Your task to perform on an android device: delete location history Image 0: 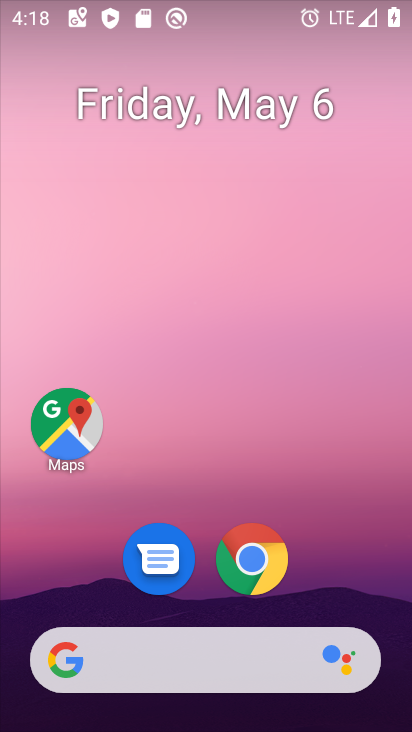
Step 0: drag from (217, 586) to (250, 264)
Your task to perform on an android device: delete location history Image 1: 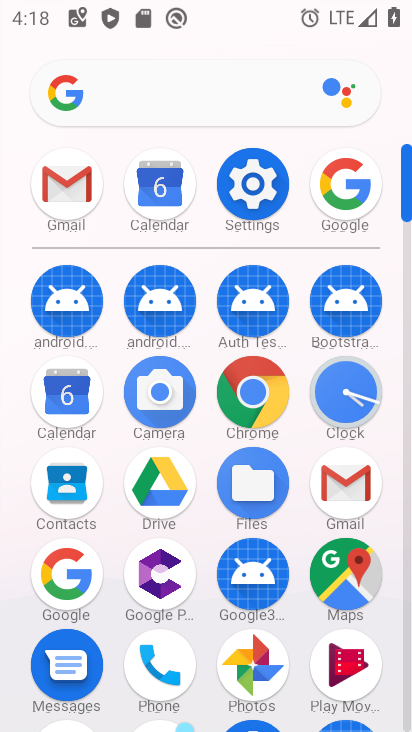
Step 1: click (234, 196)
Your task to perform on an android device: delete location history Image 2: 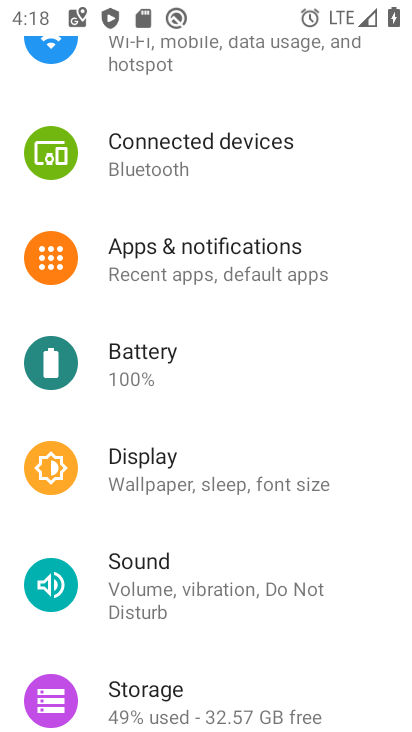
Step 2: drag from (173, 658) to (171, 301)
Your task to perform on an android device: delete location history Image 3: 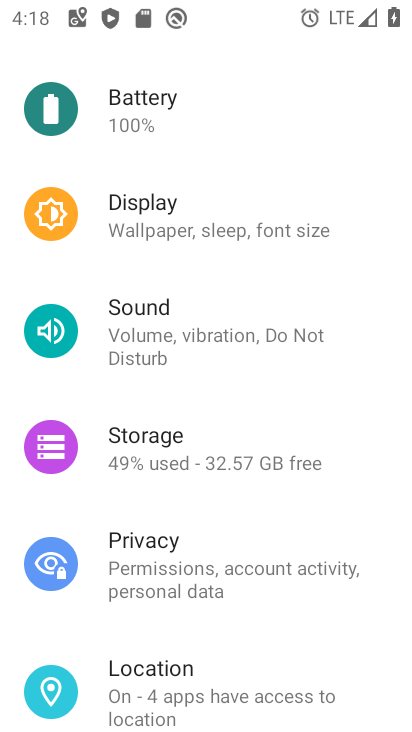
Step 3: click (176, 685)
Your task to perform on an android device: delete location history Image 4: 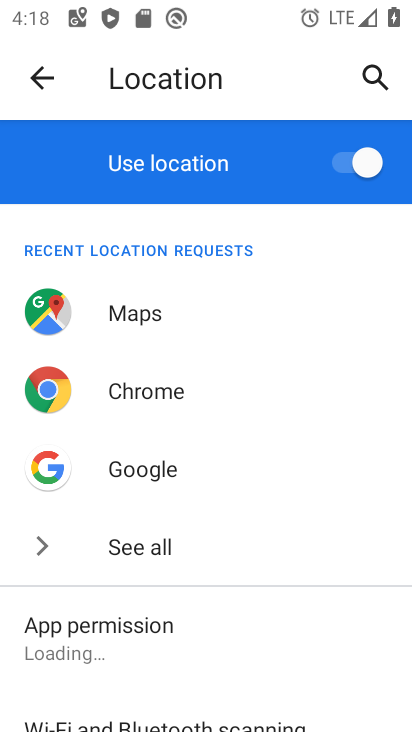
Step 4: drag from (222, 700) to (242, 272)
Your task to perform on an android device: delete location history Image 5: 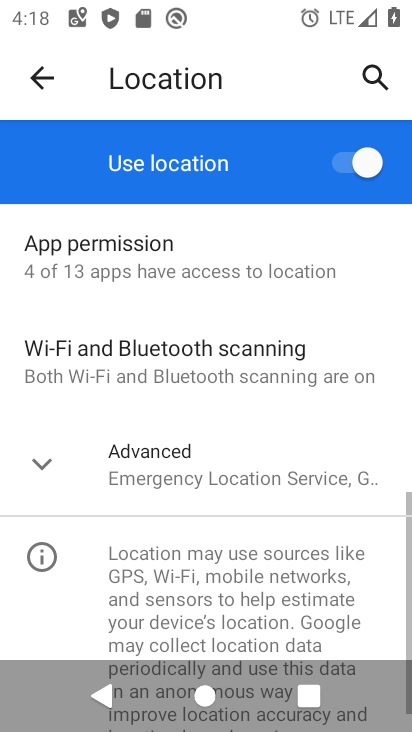
Step 5: click (159, 458)
Your task to perform on an android device: delete location history Image 6: 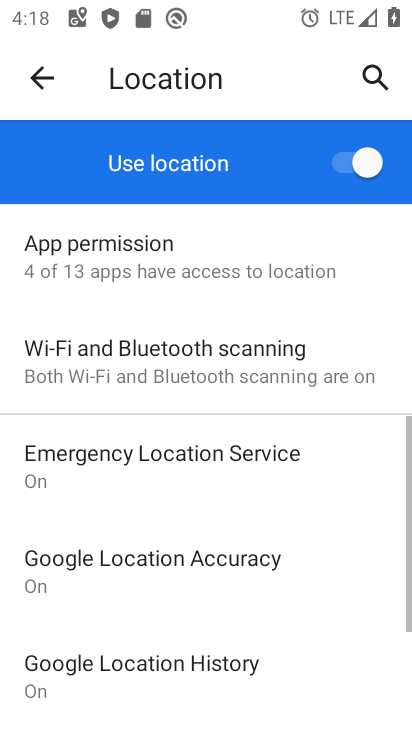
Step 6: drag from (198, 688) to (198, 394)
Your task to perform on an android device: delete location history Image 7: 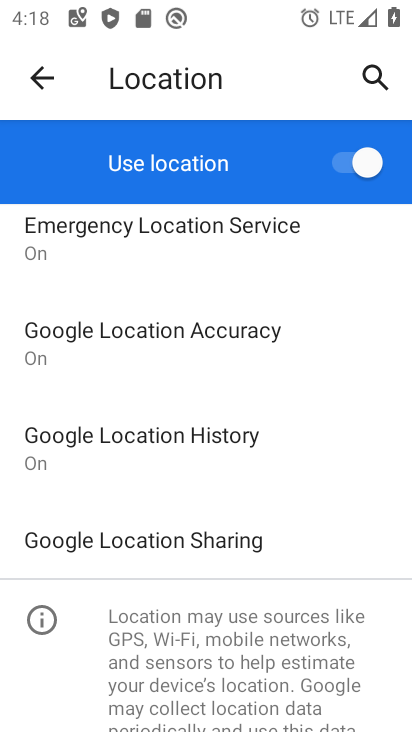
Step 7: click (151, 438)
Your task to perform on an android device: delete location history Image 8: 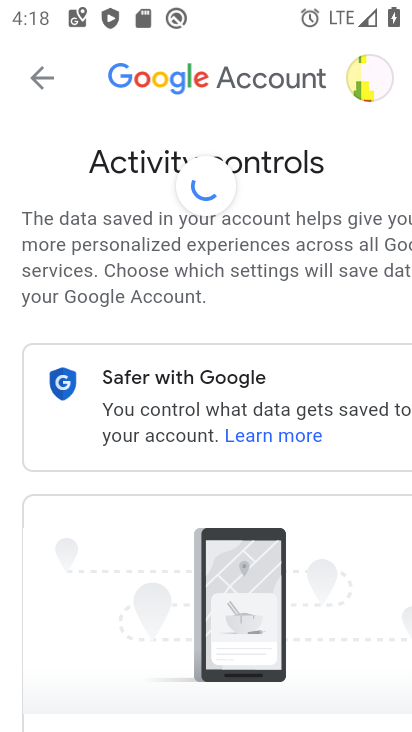
Step 8: drag from (158, 659) to (152, 289)
Your task to perform on an android device: delete location history Image 9: 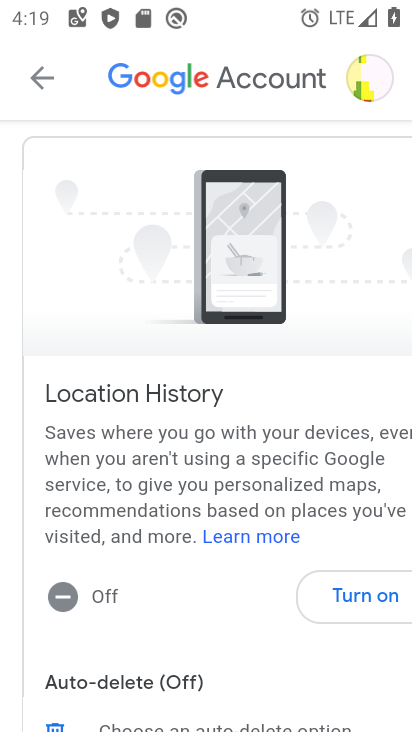
Step 9: drag from (192, 674) to (182, 314)
Your task to perform on an android device: delete location history Image 10: 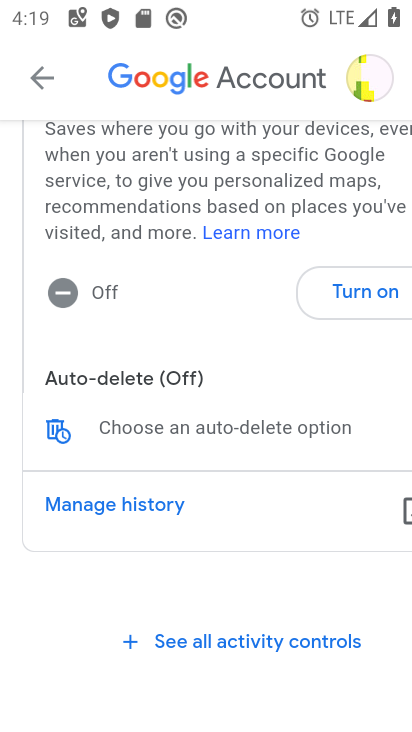
Step 10: click (159, 429)
Your task to perform on an android device: delete location history Image 11: 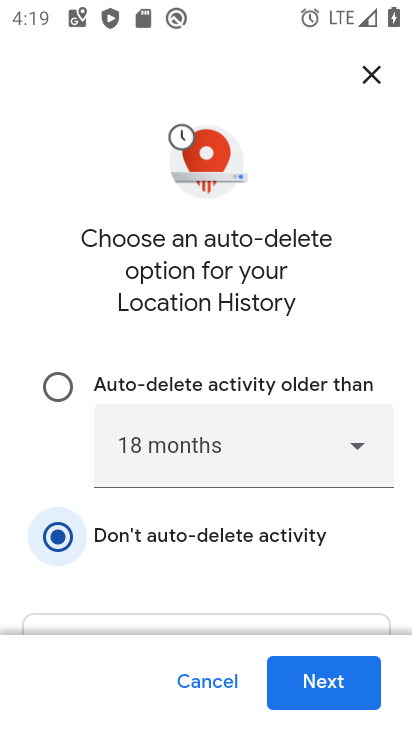
Step 11: click (334, 682)
Your task to perform on an android device: delete location history Image 12: 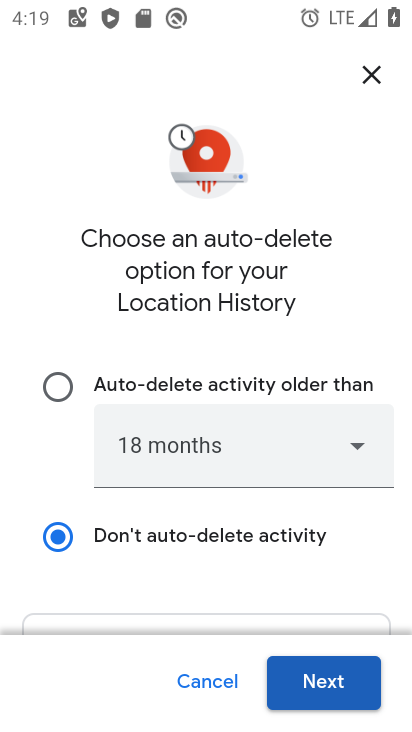
Step 12: click (307, 688)
Your task to perform on an android device: delete location history Image 13: 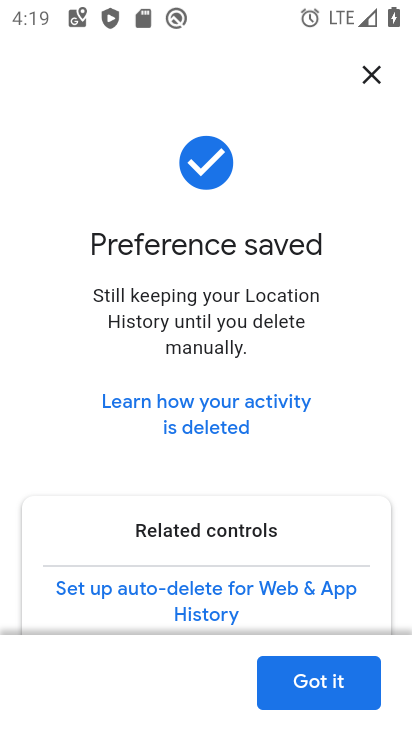
Step 13: click (306, 684)
Your task to perform on an android device: delete location history Image 14: 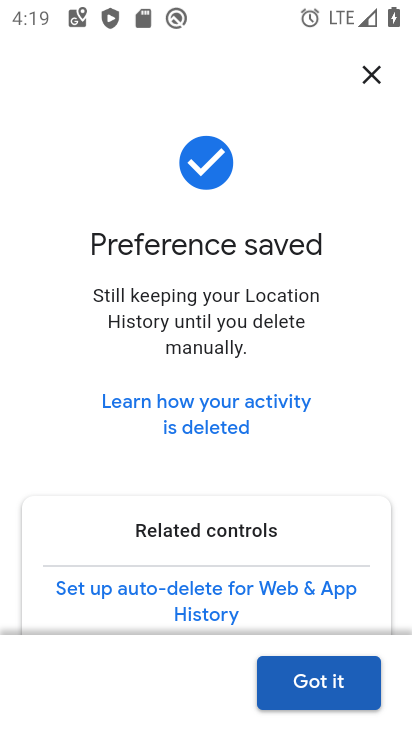
Step 14: click (305, 682)
Your task to perform on an android device: delete location history Image 15: 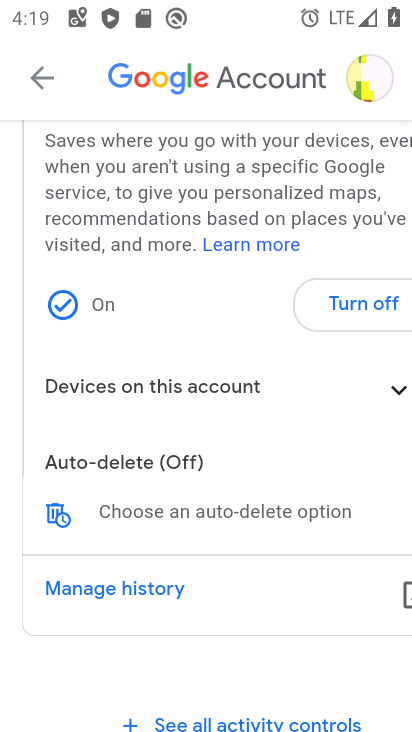
Step 15: task complete